Your task to perform on an android device: toggle airplane mode Image 0: 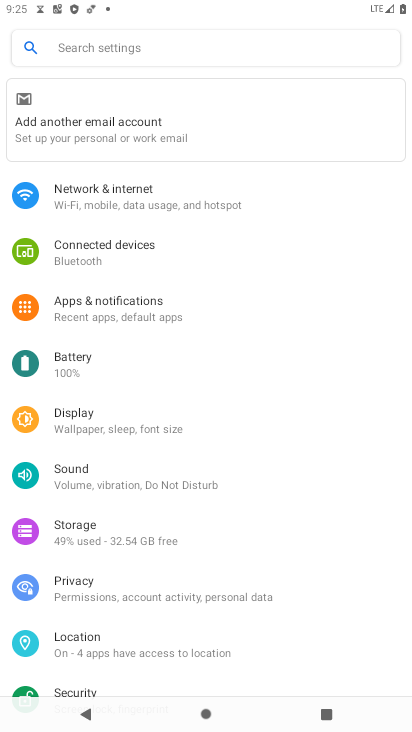
Step 0: click (167, 180)
Your task to perform on an android device: toggle airplane mode Image 1: 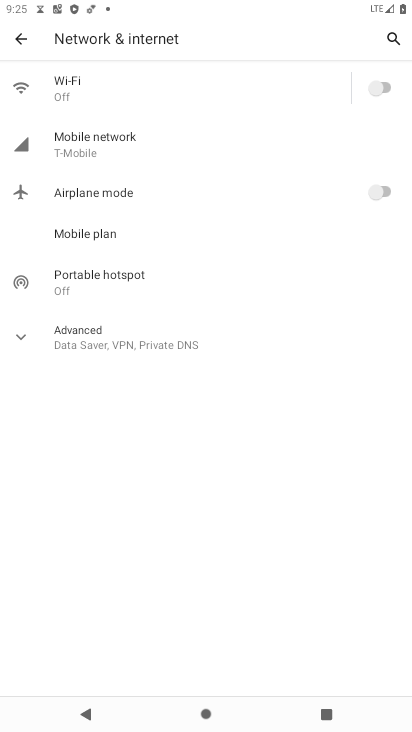
Step 1: click (391, 196)
Your task to perform on an android device: toggle airplane mode Image 2: 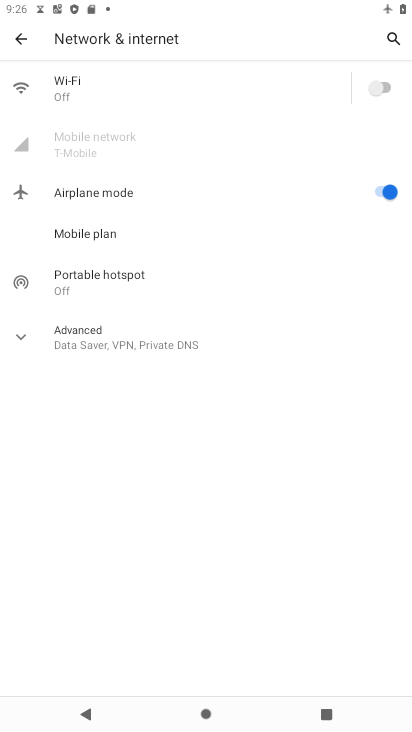
Step 2: task complete